Your task to perform on an android device: Toggle the flashlight Image 0: 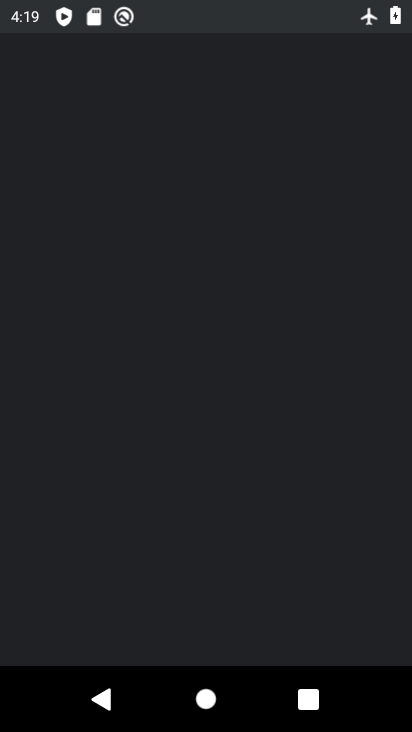
Step 0: drag from (292, 541) to (279, 104)
Your task to perform on an android device: Toggle the flashlight Image 1: 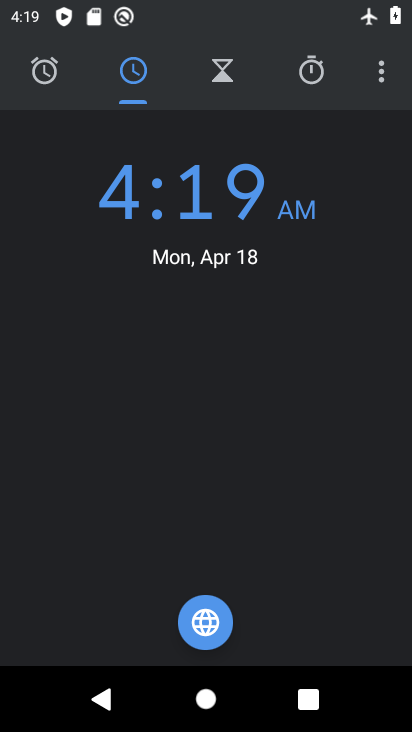
Step 1: task complete